Your task to perform on an android device: toggle translation in the chrome app Image 0: 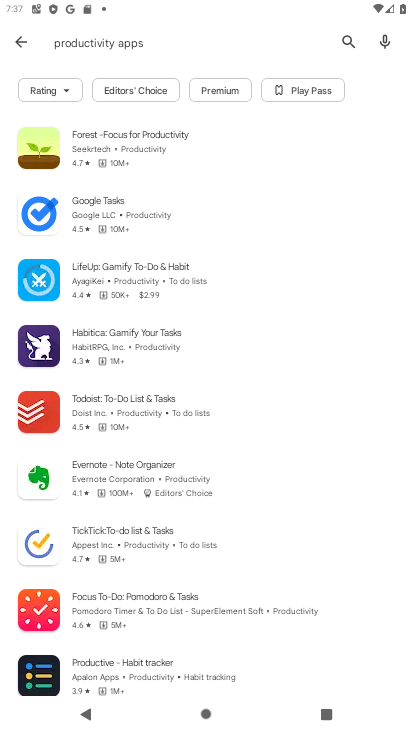
Step 0: press home button
Your task to perform on an android device: toggle translation in the chrome app Image 1: 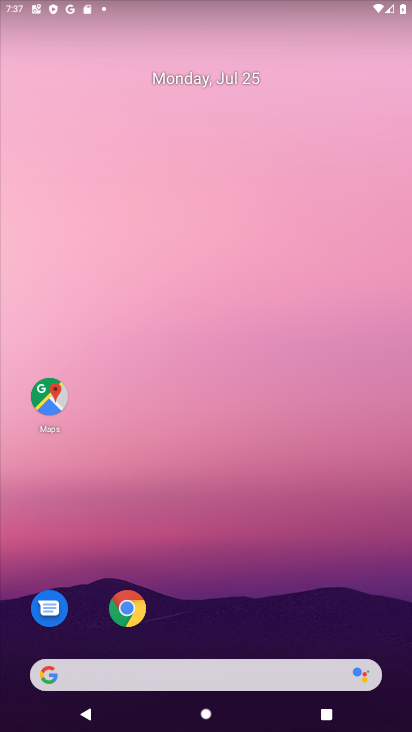
Step 1: drag from (194, 594) to (203, 216)
Your task to perform on an android device: toggle translation in the chrome app Image 2: 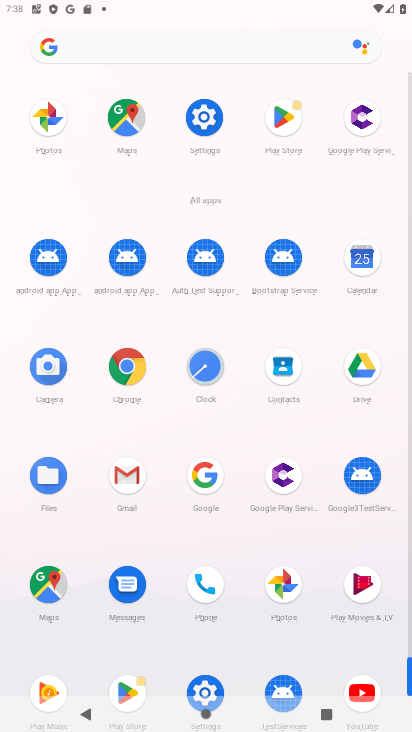
Step 2: click (129, 386)
Your task to perform on an android device: toggle translation in the chrome app Image 3: 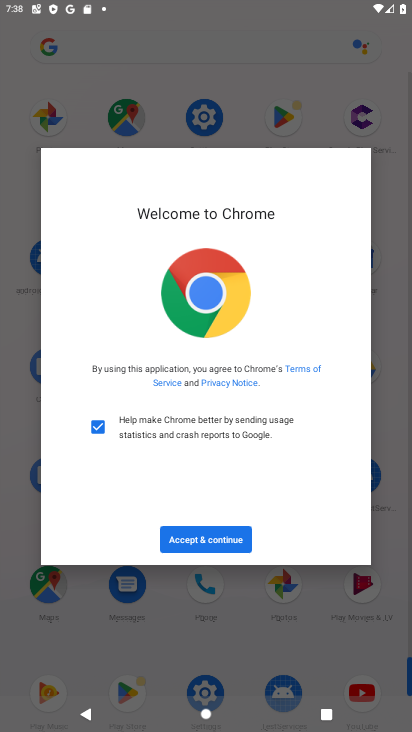
Step 3: click (202, 536)
Your task to perform on an android device: toggle translation in the chrome app Image 4: 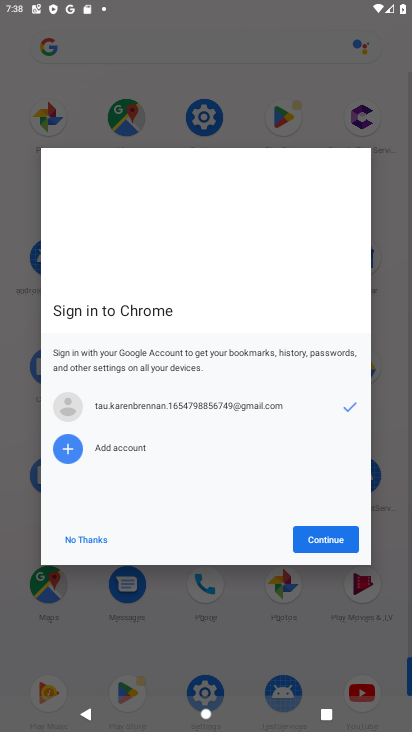
Step 4: click (327, 551)
Your task to perform on an android device: toggle translation in the chrome app Image 5: 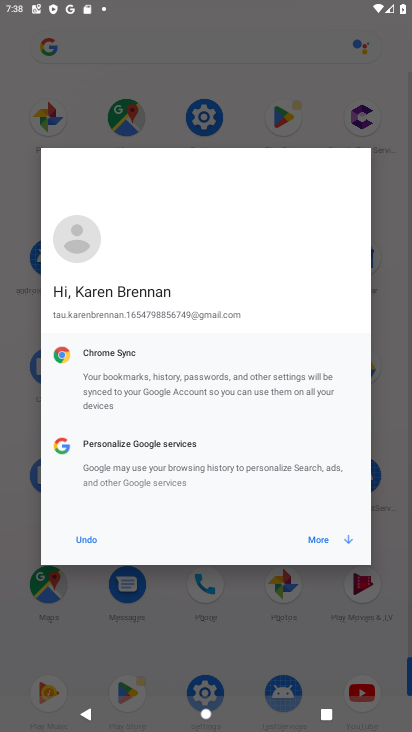
Step 5: click (325, 530)
Your task to perform on an android device: toggle translation in the chrome app Image 6: 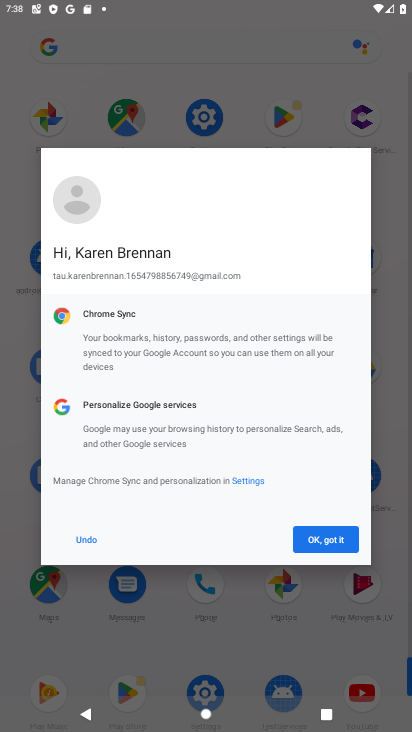
Step 6: click (325, 547)
Your task to perform on an android device: toggle translation in the chrome app Image 7: 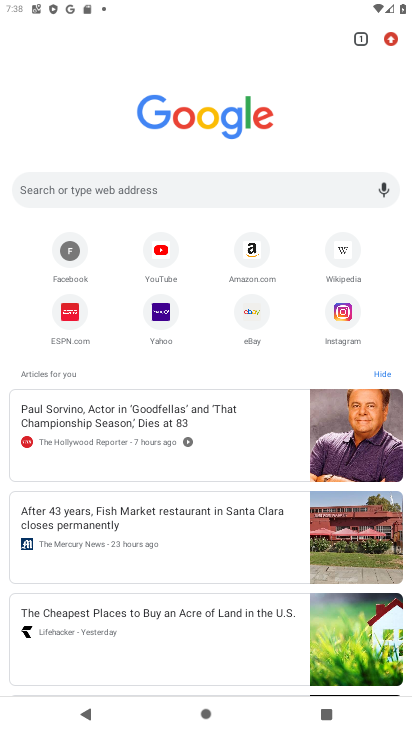
Step 7: click (388, 42)
Your task to perform on an android device: toggle translation in the chrome app Image 8: 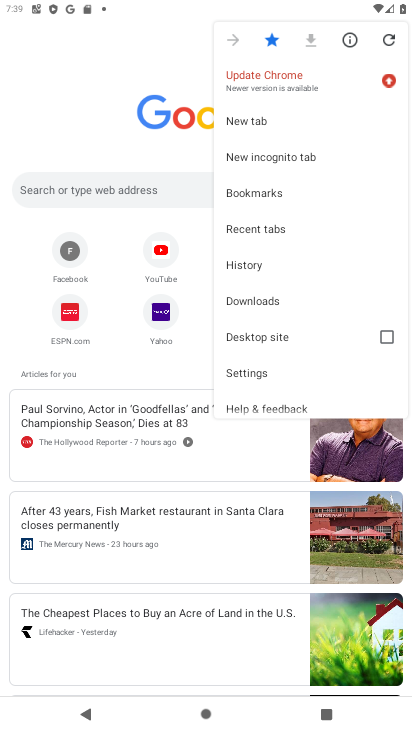
Step 8: task complete